Your task to perform on an android device: remove spam from my inbox in the gmail app Image 0: 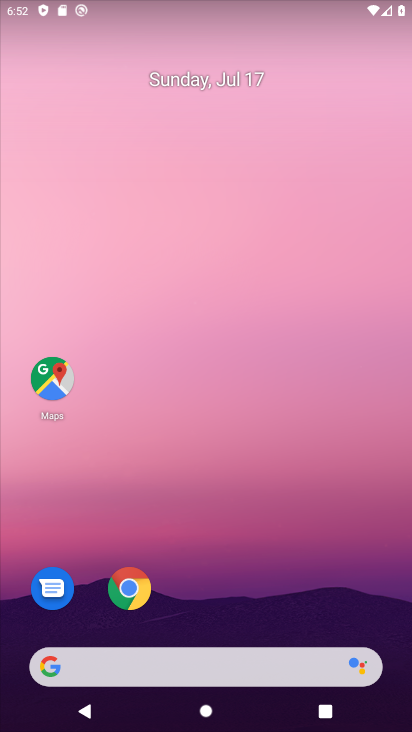
Step 0: drag from (358, 619) to (246, 14)
Your task to perform on an android device: remove spam from my inbox in the gmail app Image 1: 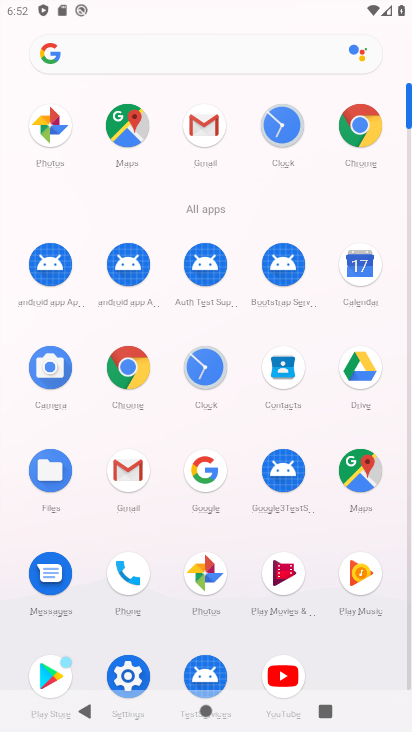
Step 1: click (129, 471)
Your task to perform on an android device: remove spam from my inbox in the gmail app Image 2: 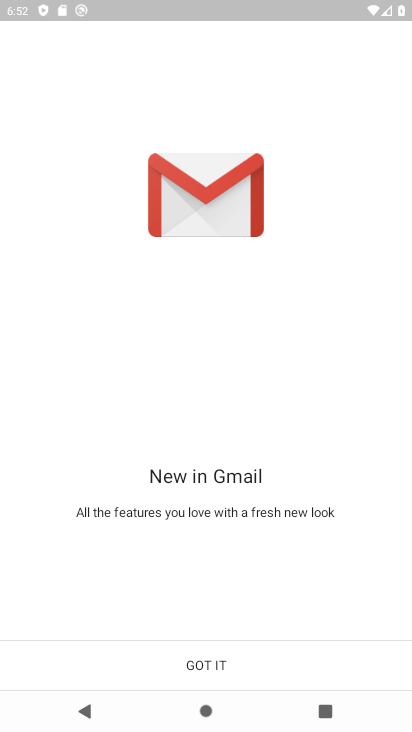
Step 2: click (215, 647)
Your task to perform on an android device: remove spam from my inbox in the gmail app Image 3: 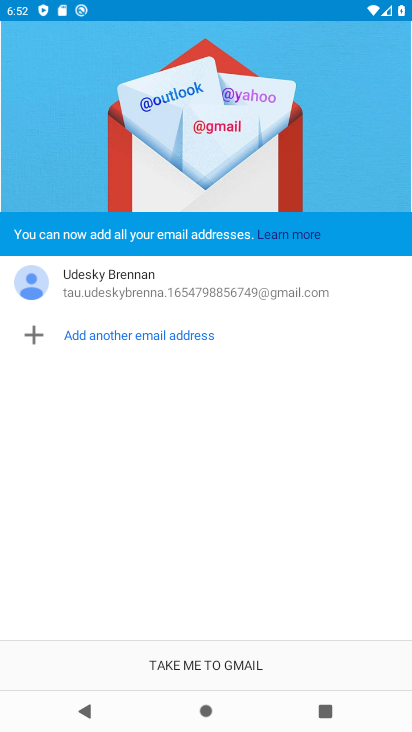
Step 3: click (216, 663)
Your task to perform on an android device: remove spam from my inbox in the gmail app Image 4: 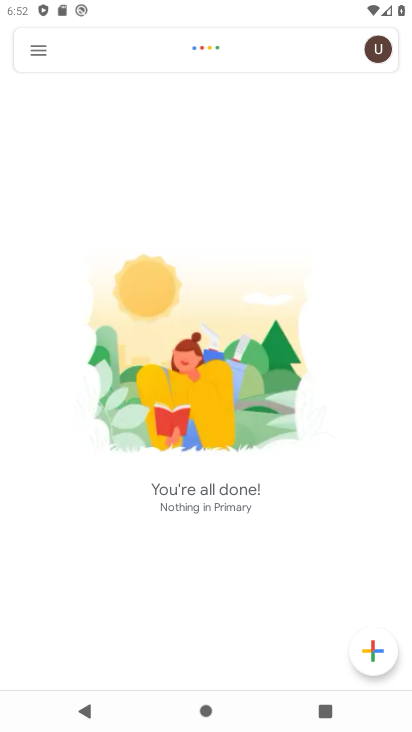
Step 4: click (41, 42)
Your task to perform on an android device: remove spam from my inbox in the gmail app Image 5: 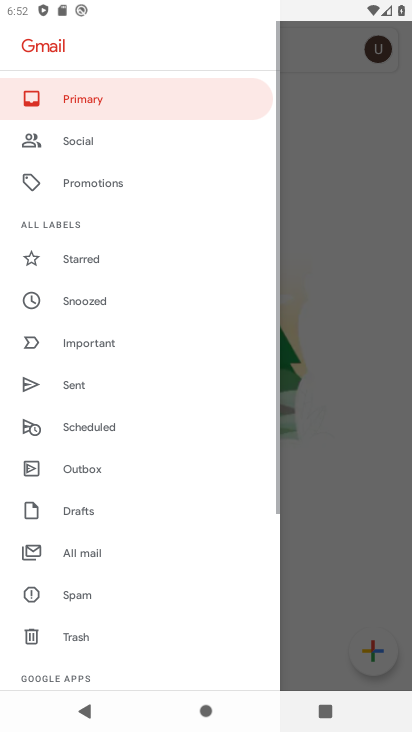
Step 5: click (61, 591)
Your task to perform on an android device: remove spam from my inbox in the gmail app Image 6: 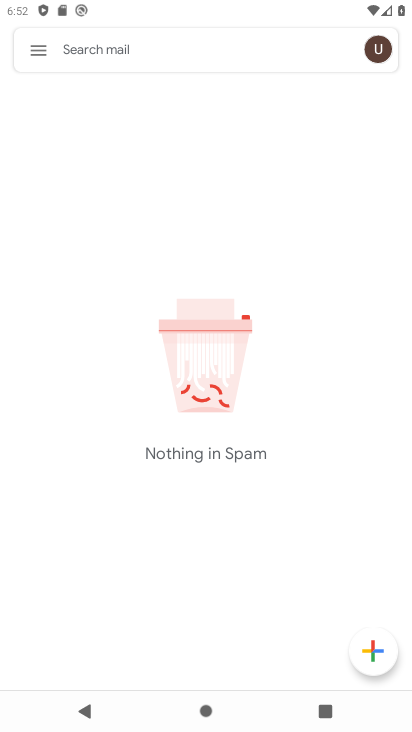
Step 6: task complete